Your task to perform on an android device: check google app version Image 0: 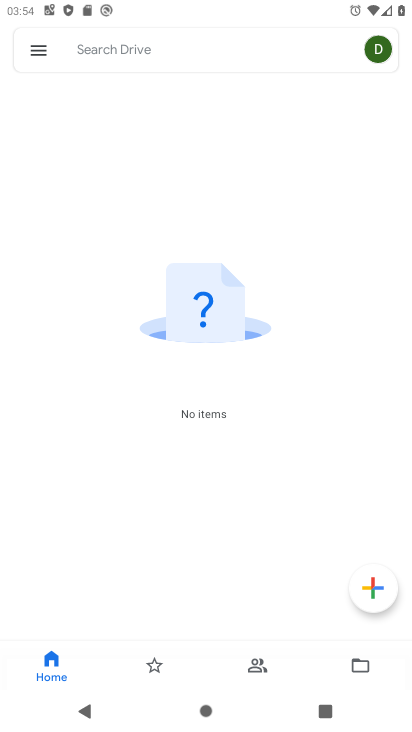
Step 0: press home button
Your task to perform on an android device: check google app version Image 1: 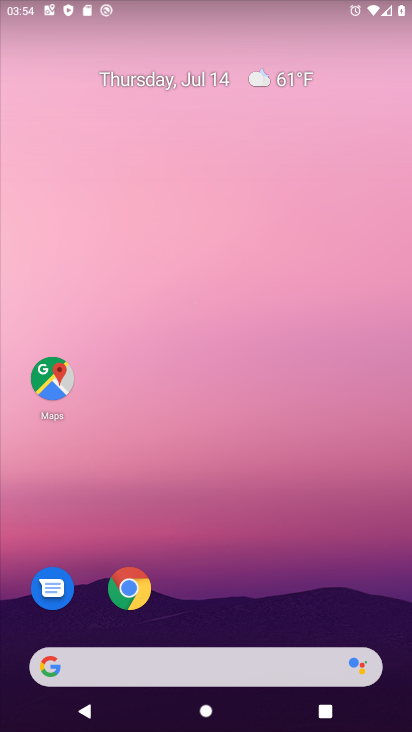
Step 1: drag from (194, 602) to (110, 19)
Your task to perform on an android device: check google app version Image 2: 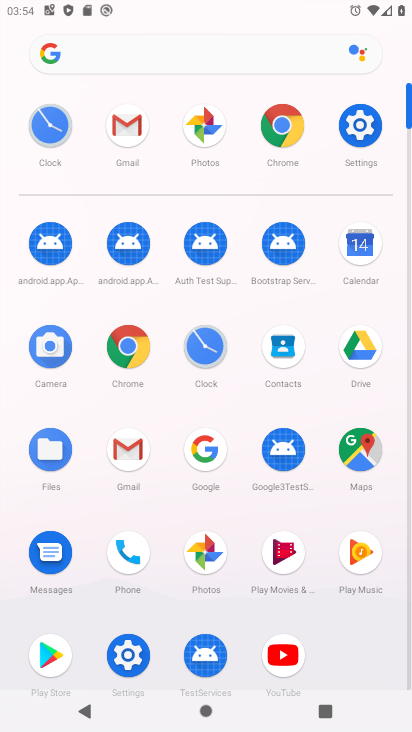
Step 2: click (208, 456)
Your task to perform on an android device: check google app version Image 3: 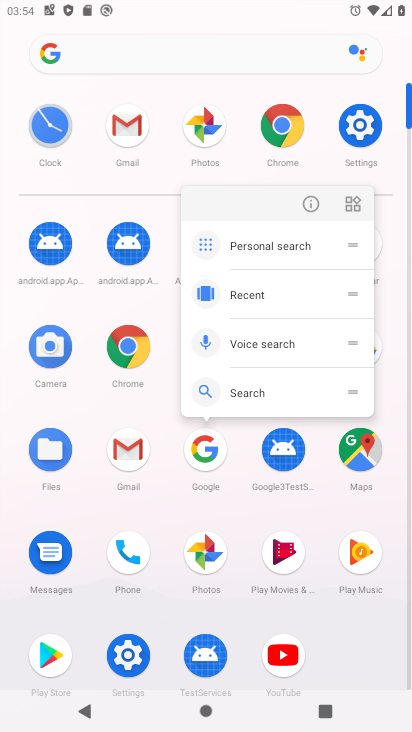
Step 3: click (316, 200)
Your task to perform on an android device: check google app version Image 4: 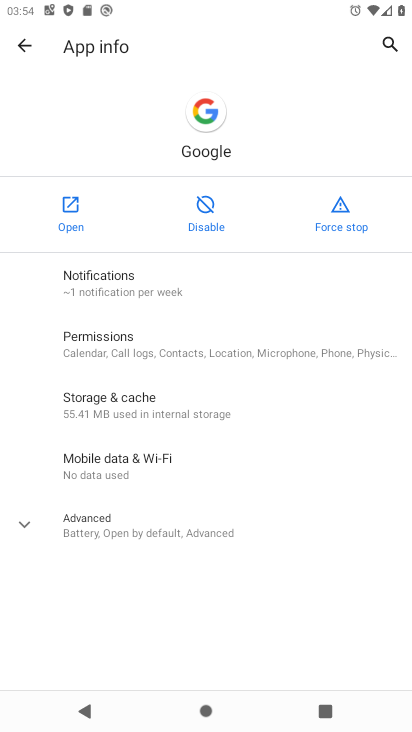
Step 4: click (19, 528)
Your task to perform on an android device: check google app version Image 5: 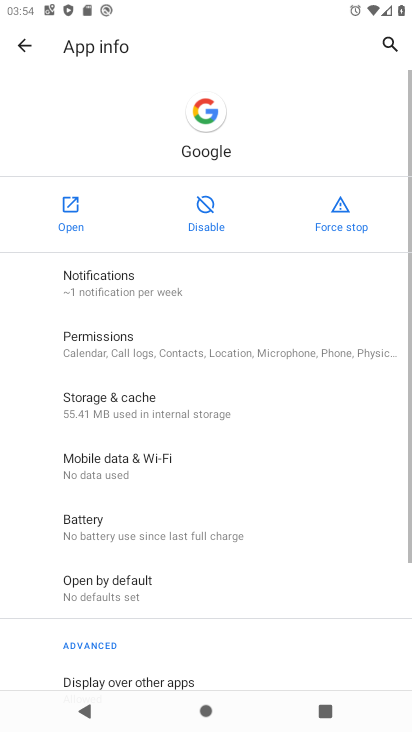
Step 5: task complete